Your task to perform on an android device: read, delete, or share a saved page in the chrome app Image 0: 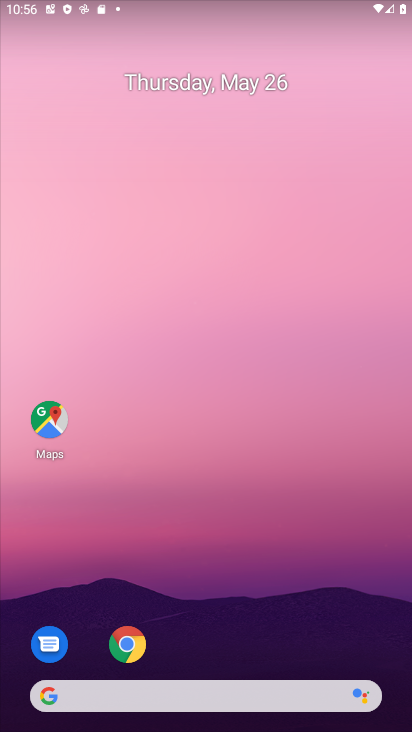
Step 0: drag from (354, 622) to (253, 69)
Your task to perform on an android device: read, delete, or share a saved page in the chrome app Image 1: 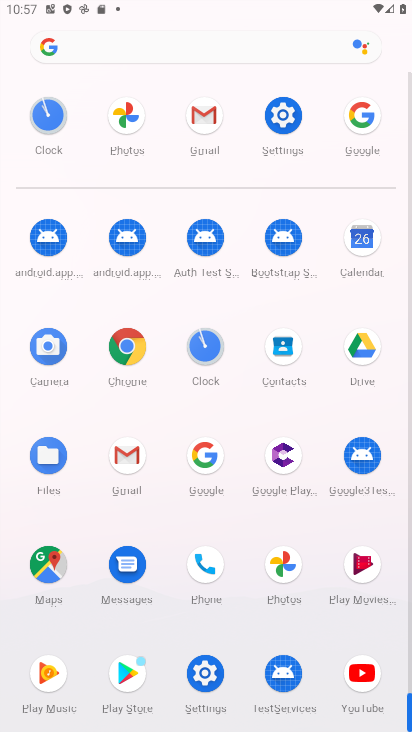
Step 1: click (120, 338)
Your task to perform on an android device: read, delete, or share a saved page in the chrome app Image 2: 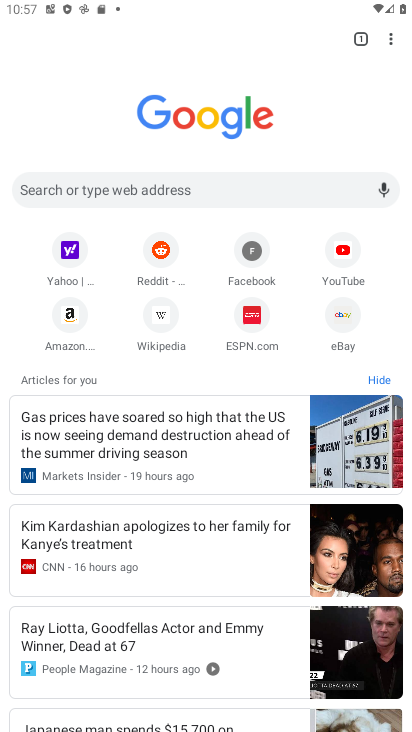
Step 2: task complete